Your task to perform on an android device: delete browsing data in the chrome app Image 0: 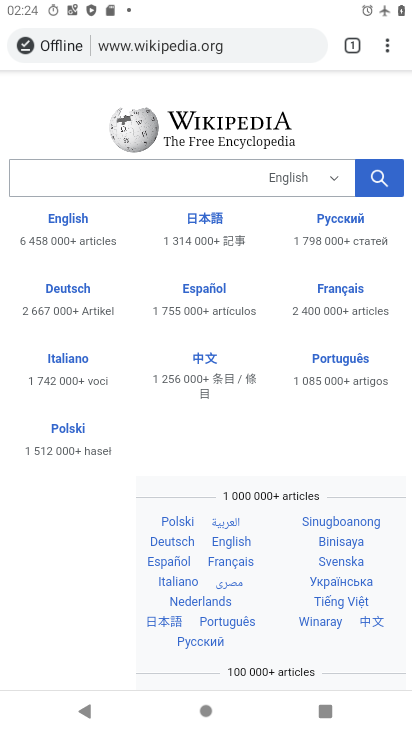
Step 0: drag from (285, 389) to (303, 164)
Your task to perform on an android device: delete browsing data in the chrome app Image 1: 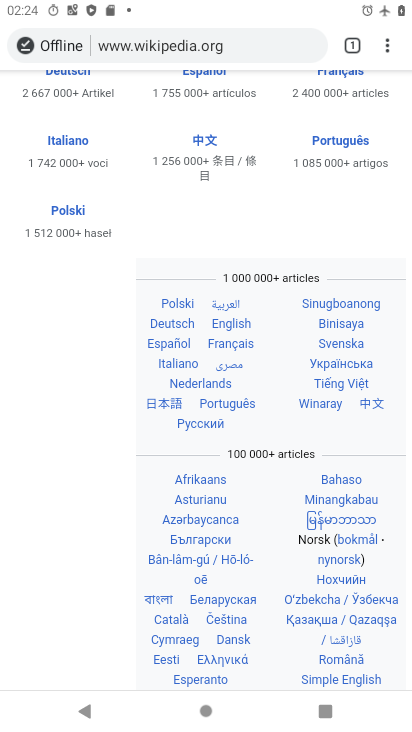
Step 1: drag from (288, 158) to (354, 718)
Your task to perform on an android device: delete browsing data in the chrome app Image 2: 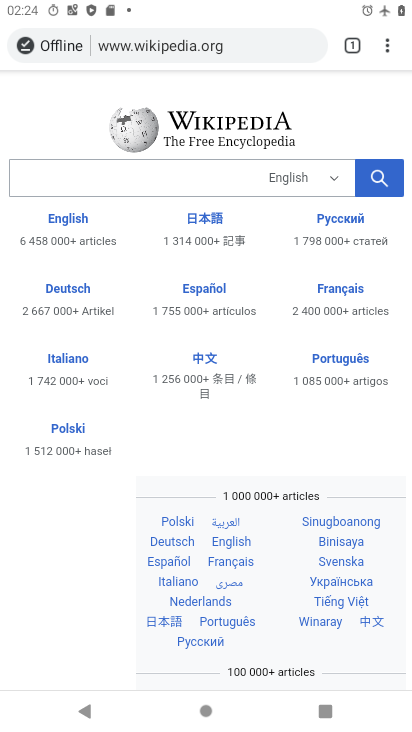
Step 2: click (368, 44)
Your task to perform on an android device: delete browsing data in the chrome app Image 3: 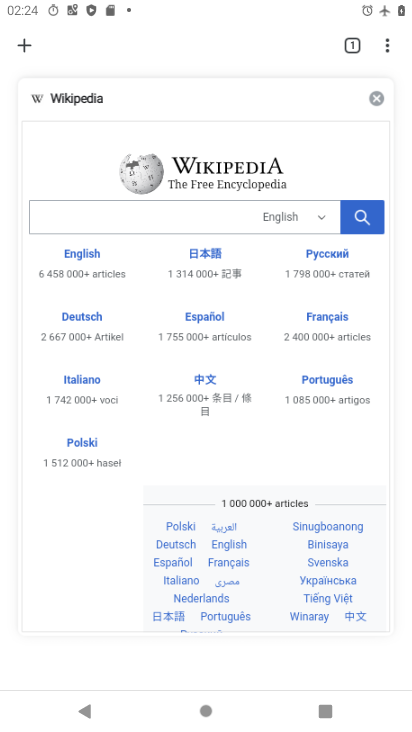
Step 3: click (307, 170)
Your task to perform on an android device: delete browsing data in the chrome app Image 4: 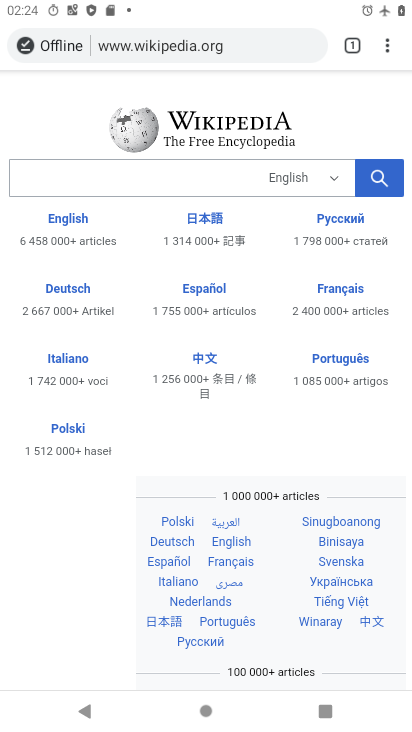
Step 4: click (386, 44)
Your task to perform on an android device: delete browsing data in the chrome app Image 5: 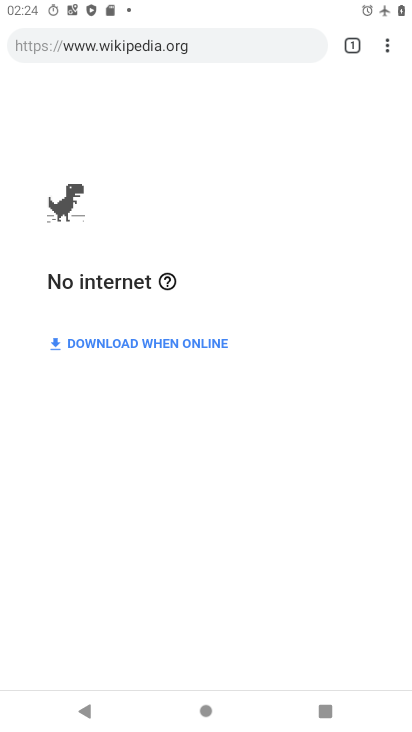
Step 5: drag from (154, 360) to (184, 218)
Your task to perform on an android device: delete browsing data in the chrome app Image 6: 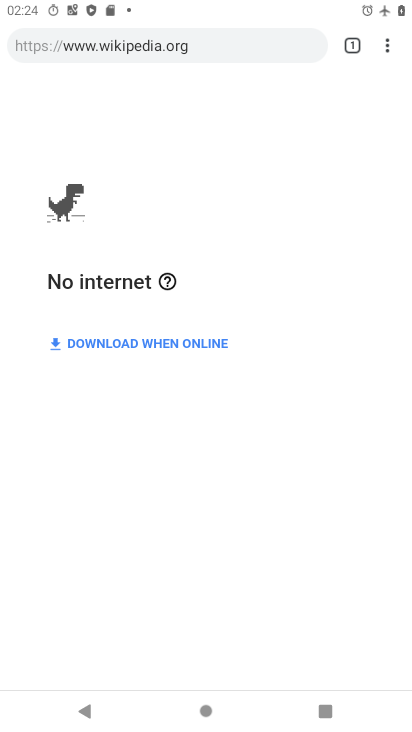
Step 6: drag from (259, 553) to (259, 244)
Your task to perform on an android device: delete browsing data in the chrome app Image 7: 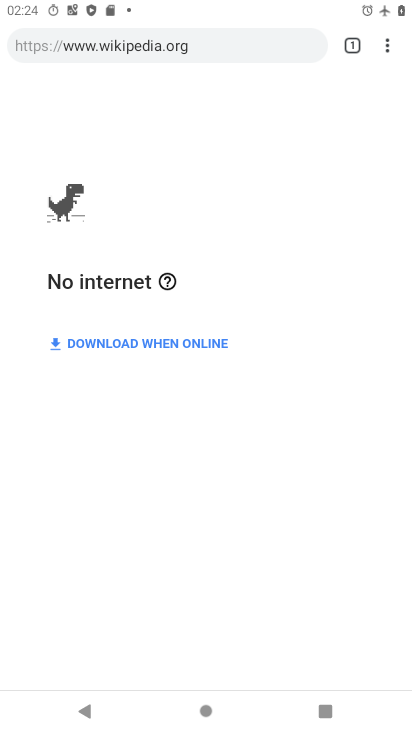
Step 7: drag from (224, 558) to (138, 232)
Your task to perform on an android device: delete browsing data in the chrome app Image 8: 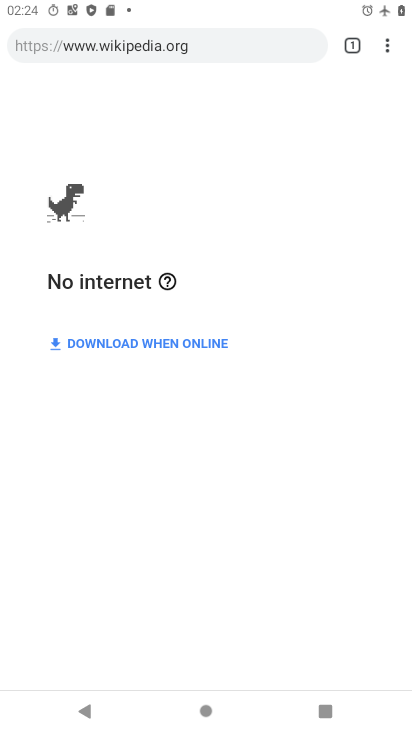
Step 8: drag from (251, 564) to (230, 418)
Your task to perform on an android device: delete browsing data in the chrome app Image 9: 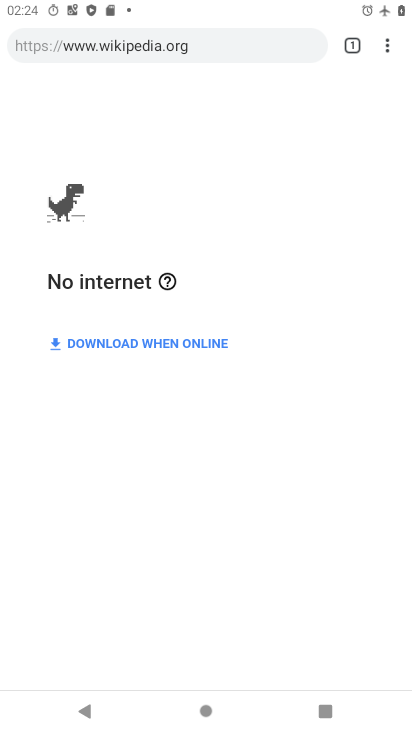
Step 9: drag from (177, 510) to (213, 274)
Your task to perform on an android device: delete browsing data in the chrome app Image 10: 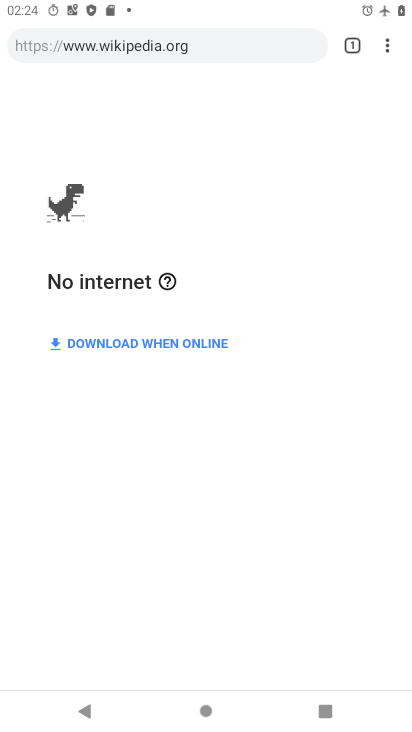
Step 10: drag from (245, 574) to (250, 171)
Your task to perform on an android device: delete browsing data in the chrome app Image 11: 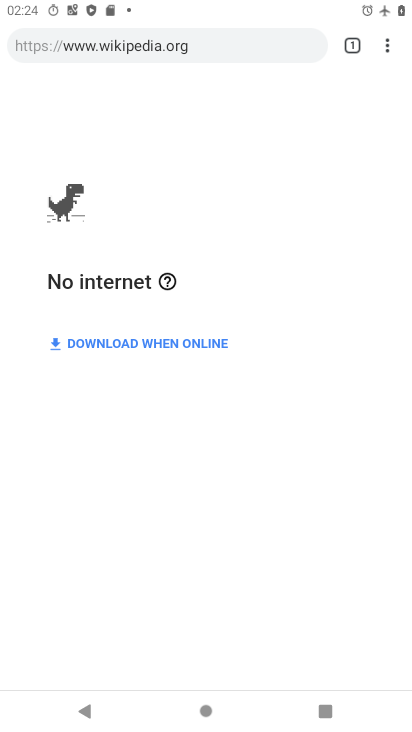
Step 11: drag from (201, 631) to (205, 107)
Your task to perform on an android device: delete browsing data in the chrome app Image 12: 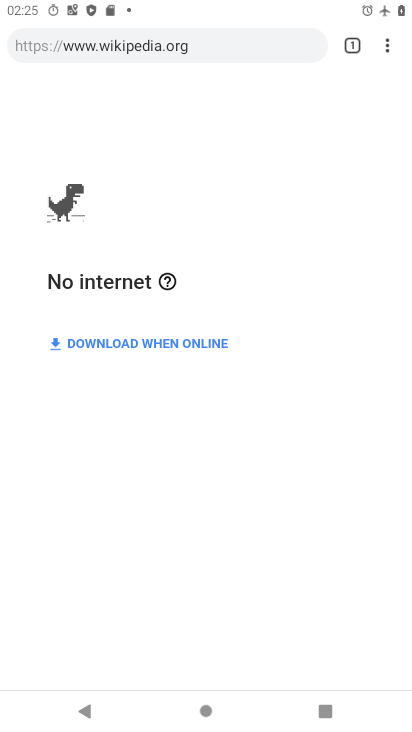
Step 12: drag from (260, 443) to (260, 308)
Your task to perform on an android device: delete browsing data in the chrome app Image 13: 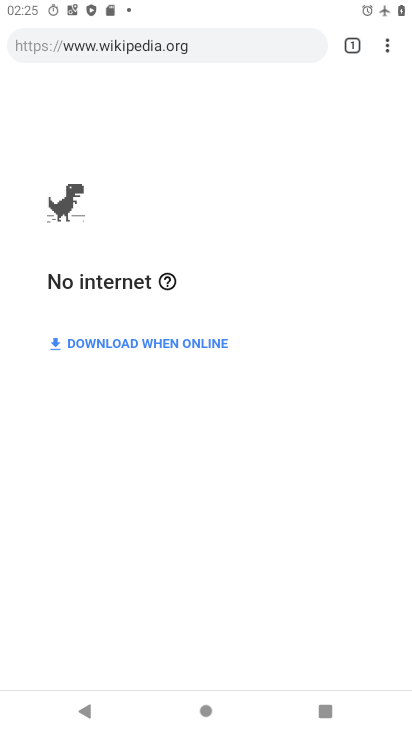
Step 13: drag from (245, 454) to (255, 258)
Your task to perform on an android device: delete browsing data in the chrome app Image 14: 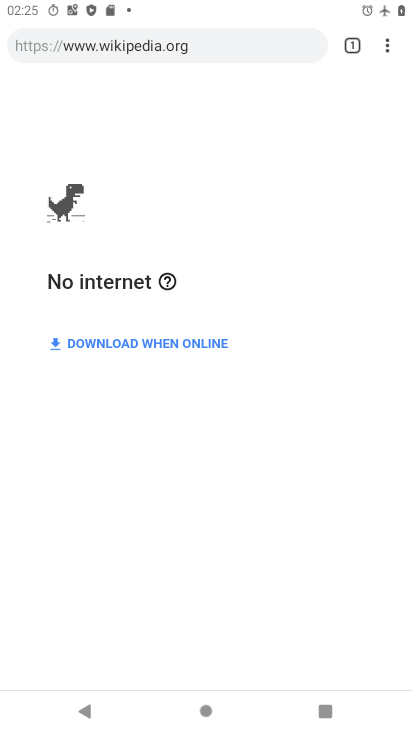
Step 14: drag from (248, 444) to (264, 212)
Your task to perform on an android device: delete browsing data in the chrome app Image 15: 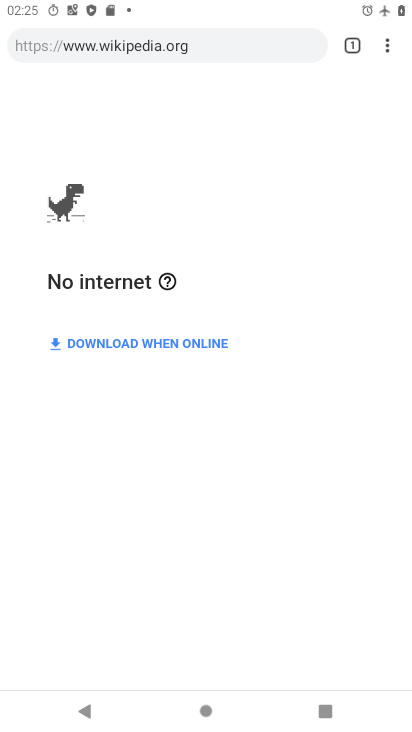
Step 15: drag from (279, 520) to (303, 390)
Your task to perform on an android device: delete browsing data in the chrome app Image 16: 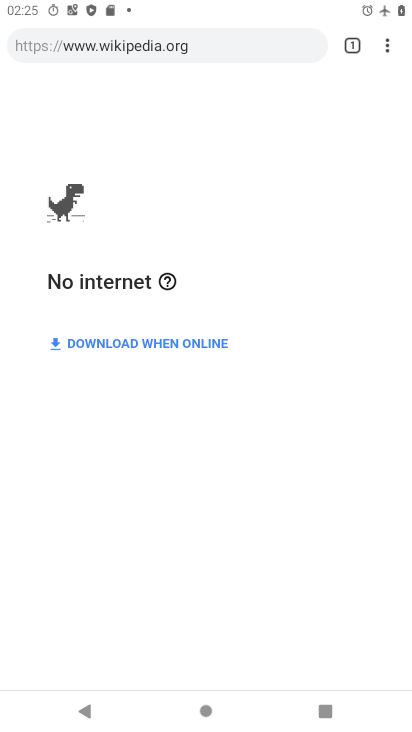
Step 16: drag from (224, 505) to (237, 313)
Your task to perform on an android device: delete browsing data in the chrome app Image 17: 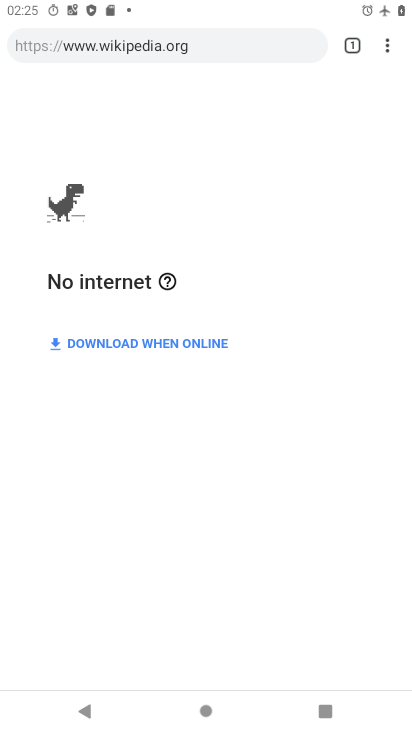
Step 17: drag from (230, 520) to (152, 0)
Your task to perform on an android device: delete browsing data in the chrome app Image 18: 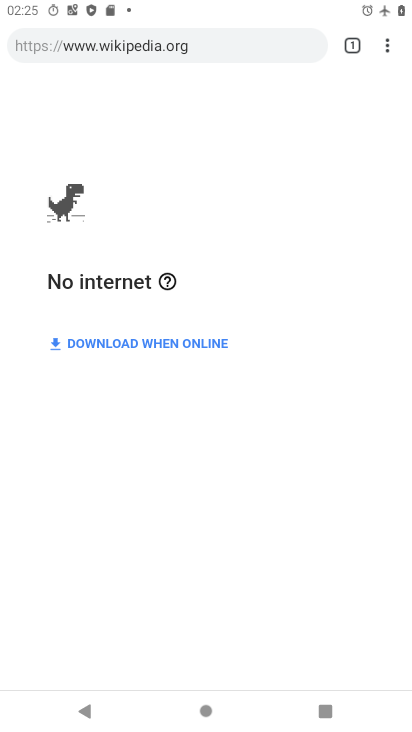
Step 18: drag from (316, 550) to (323, 210)
Your task to perform on an android device: delete browsing data in the chrome app Image 19: 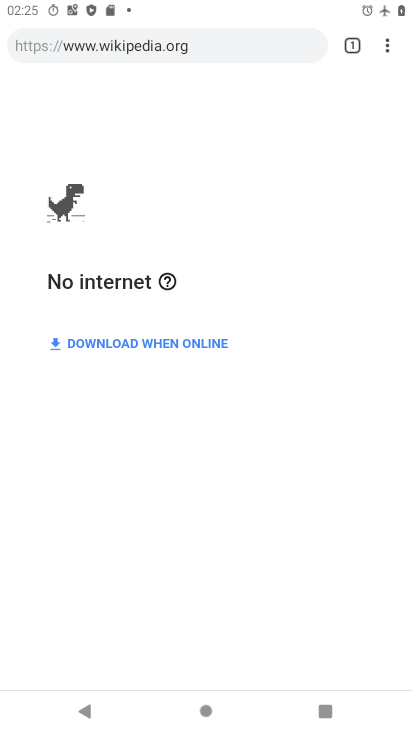
Step 19: press home button
Your task to perform on an android device: delete browsing data in the chrome app Image 20: 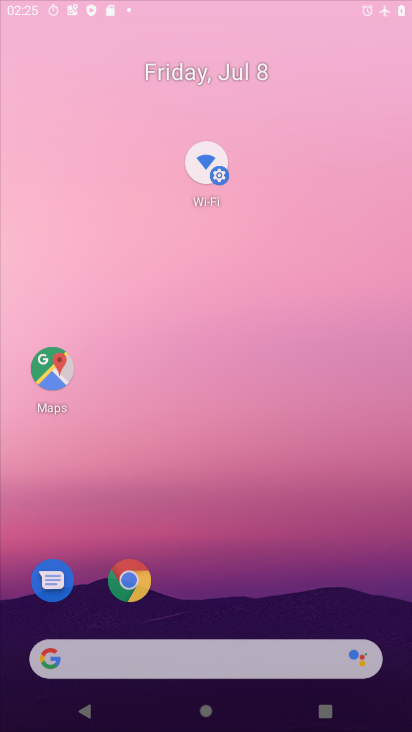
Step 20: drag from (248, 480) to (226, 116)
Your task to perform on an android device: delete browsing data in the chrome app Image 21: 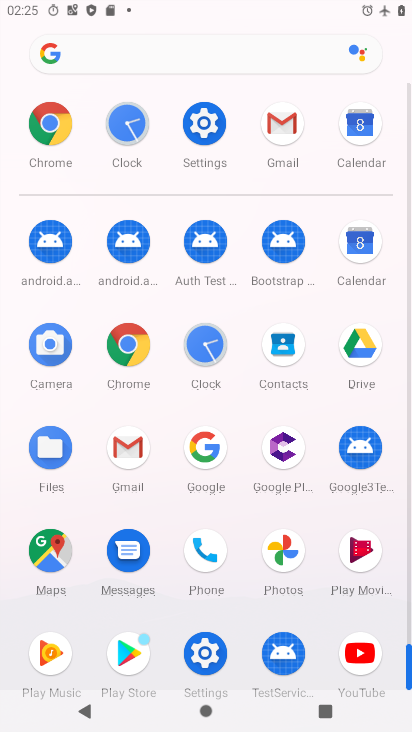
Step 21: click (127, 337)
Your task to perform on an android device: delete browsing data in the chrome app Image 22: 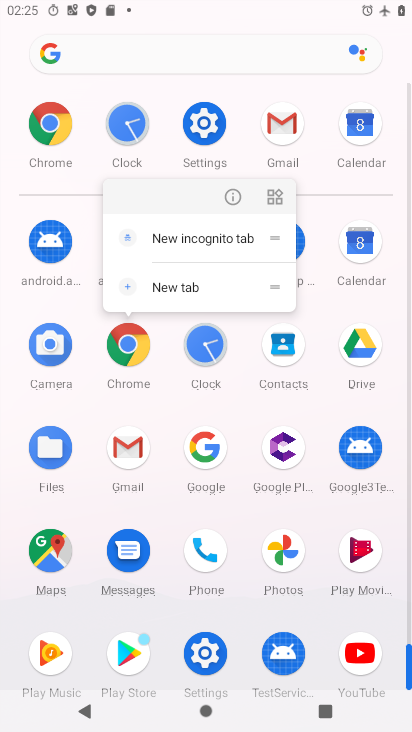
Step 22: click (237, 189)
Your task to perform on an android device: delete browsing data in the chrome app Image 23: 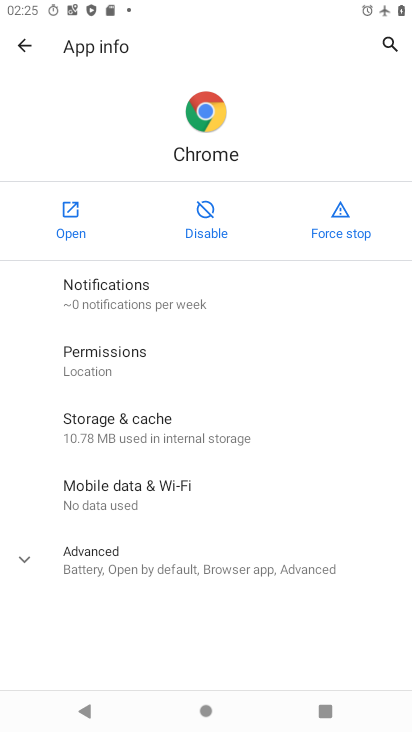
Step 23: click (77, 216)
Your task to perform on an android device: delete browsing data in the chrome app Image 24: 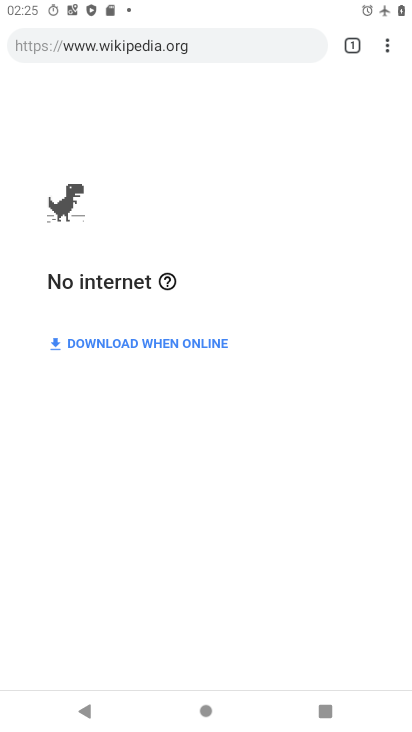
Step 24: click (383, 44)
Your task to perform on an android device: delete browsing data in the chrome app Image 25: 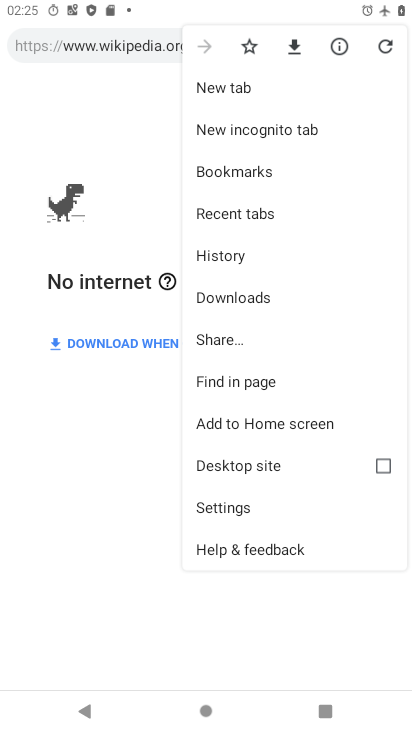
Step 25: drag from (289, 505) to (250, 209)
Your task to perform on an android device: delete browsing data in the chrome app Image 26: 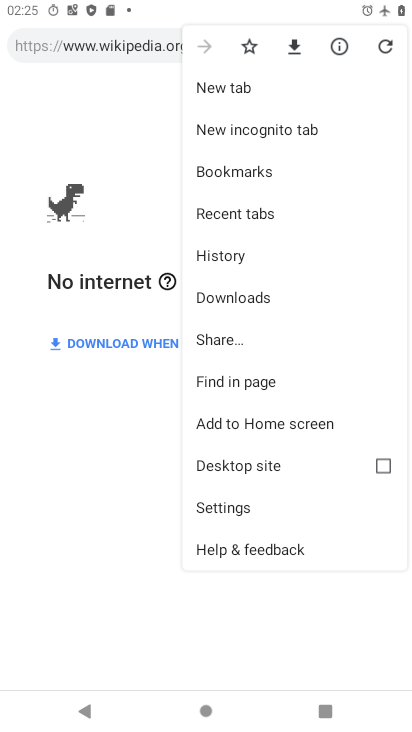
Step 26: click (251, 254)
Your task to perform on an android device: delete browsing data in the chrome app Image 27: 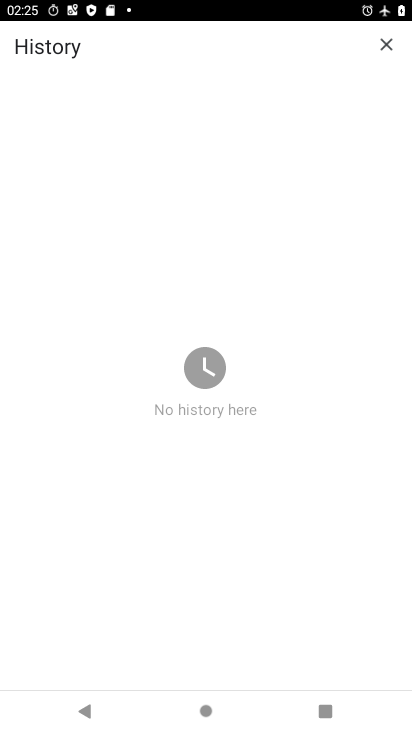
Step 27: click (226, 217)
Your task to perform on an android device: delete browsing data in the chrome app Image 28: 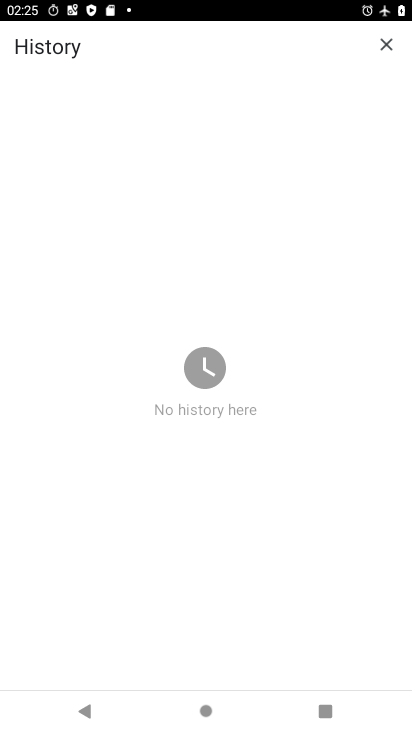
Step 28: task complete